Your task to perform on an android device: Open privacy settings Image 0: 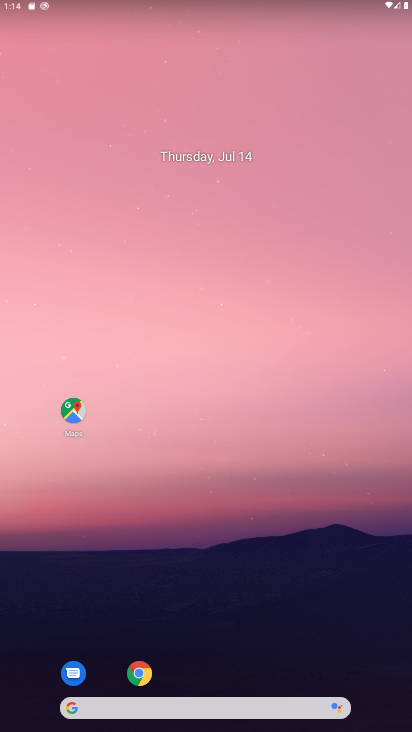
Step 0: drag from (291, 666) to (234, 0)
Your task to perform on an android device: Open privacy settings Image 1: 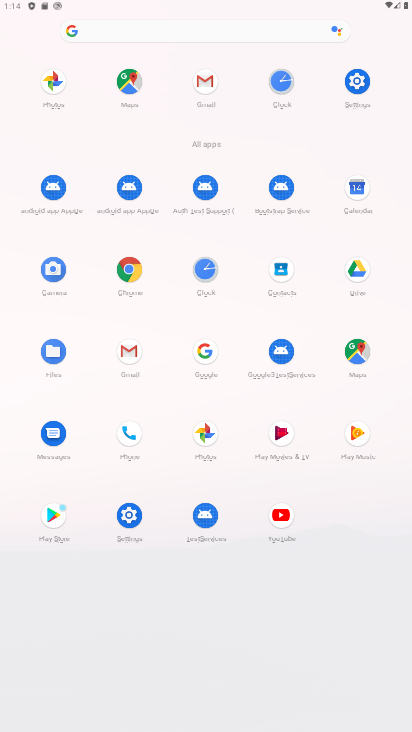
Step 1: click (362, 98)
Your task to perform on an android device: Open privacy settings Image 2: 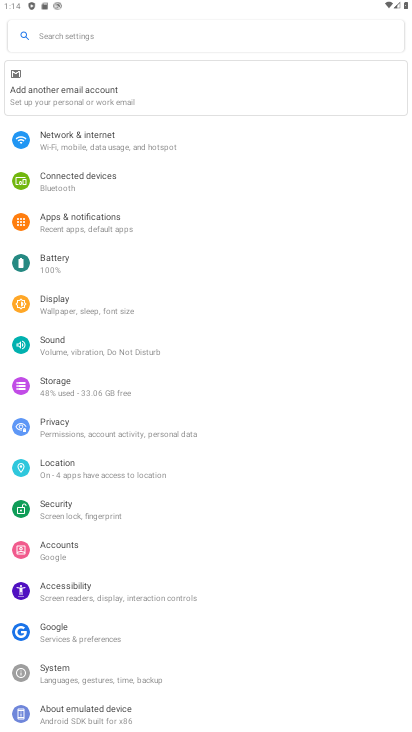
Step 2: click (85, 426)
Your task to perform on an android device: Open privacy settings Image 3: 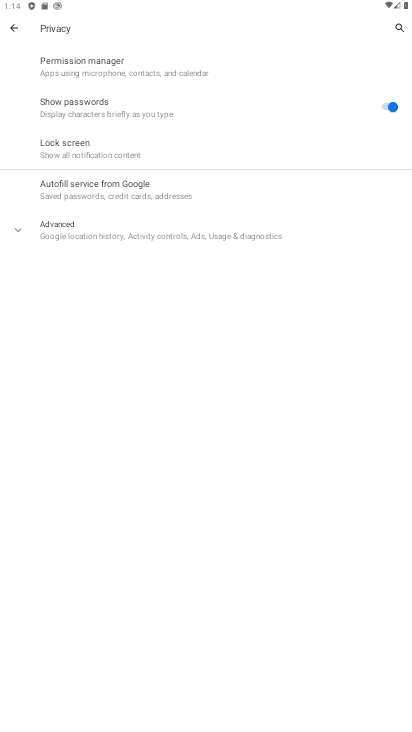
Step 3: task complete